Your task to perform on an android device: make emails show in primary in the gmail app Image 0: 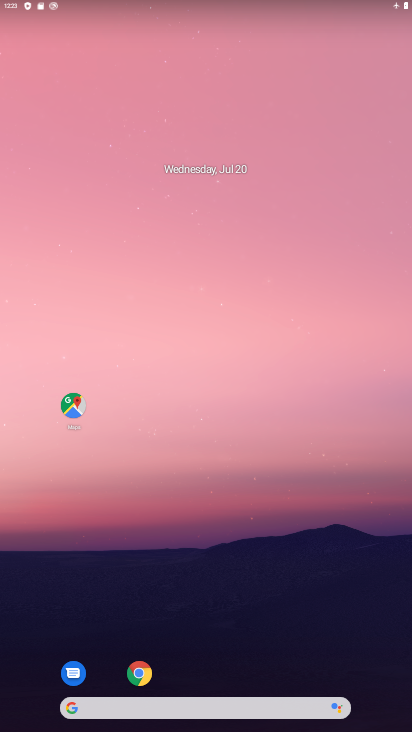
Step 0: drag from (220, 660) to (165, 246)
Your task to perform on an android device: make emails show in primary in the gmail app Image 1: 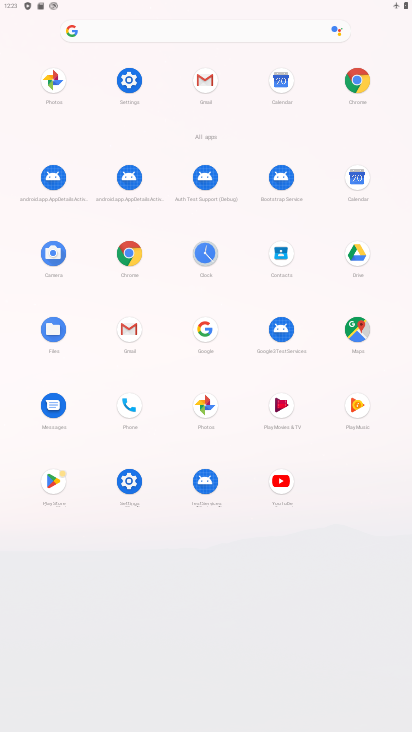
Step 1: click (132, 336)
Your task to perform on an android device: make emails show in primary in the gmail app Image 2: 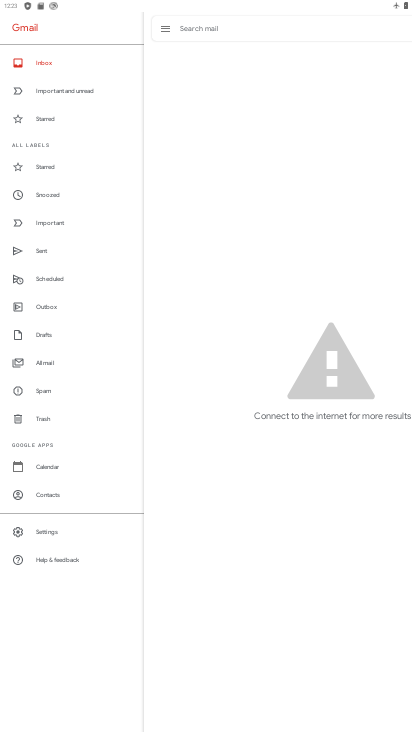
Step 2: click (57, 529)
Your task to perform on an android device: make emails show in primary in the gmail app Image 3: 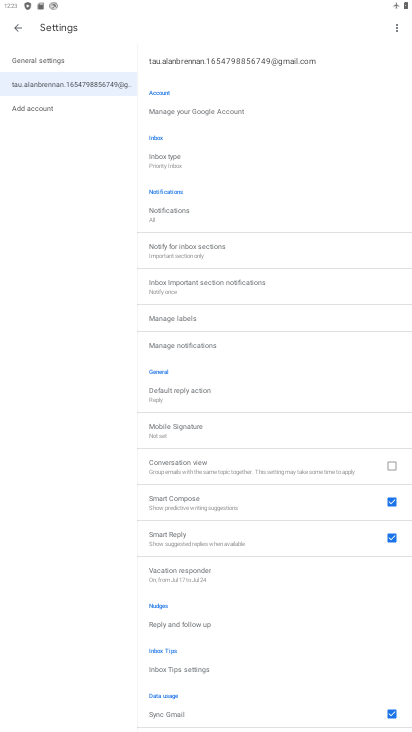
Step 3: click (196, 156)
Your task to perform on an android device: make emails show in primary in the gmail app Image 4: 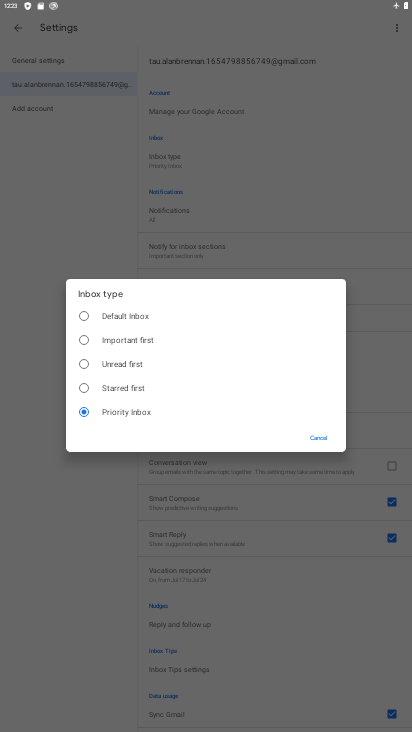
Step 4: click (164, 322)
Your task to perform on an android device: make emails show in primary in the gmail app Image 5: 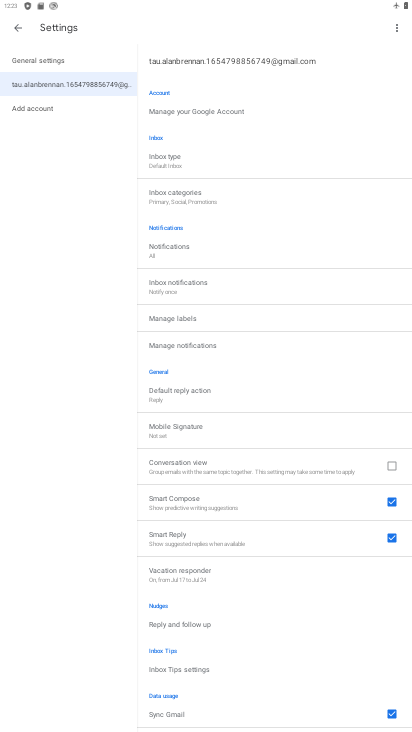
Step 5: task complete